Your task to perform on an android device: turn on the 24-hour format for clock Image 0: 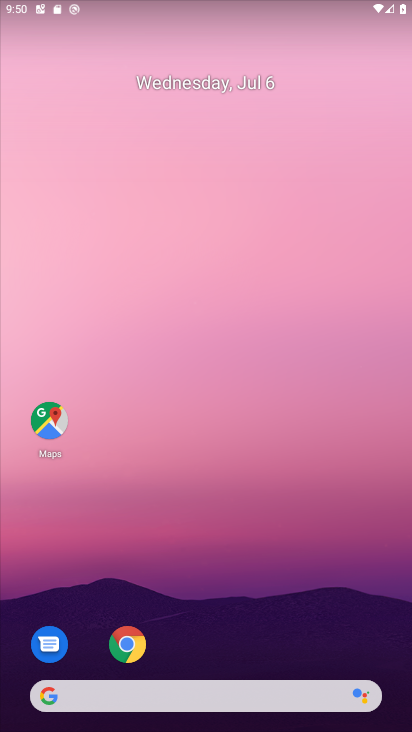
Step 0: drag from (207, 669) to (191, 87)
Your task to perform on an android device: turn on the 24-hour format for clock Image 1: 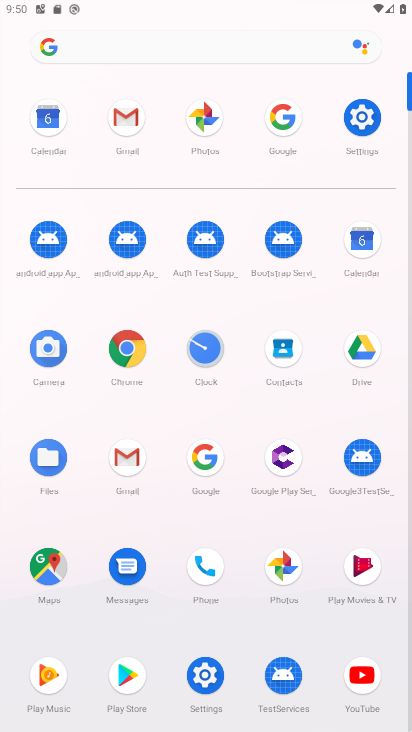
Step 1: drag from (216, 526) to (218, 315)
Your task to perform on an android device: turn on the 24-hour format for clock Image 2: 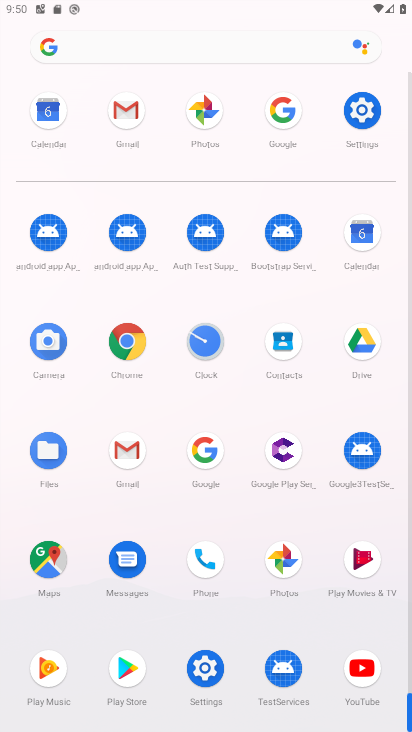
Step 2: click (207, 348)
Your task to perform on an android device: turn on the 24-hour format for clock Image 3: 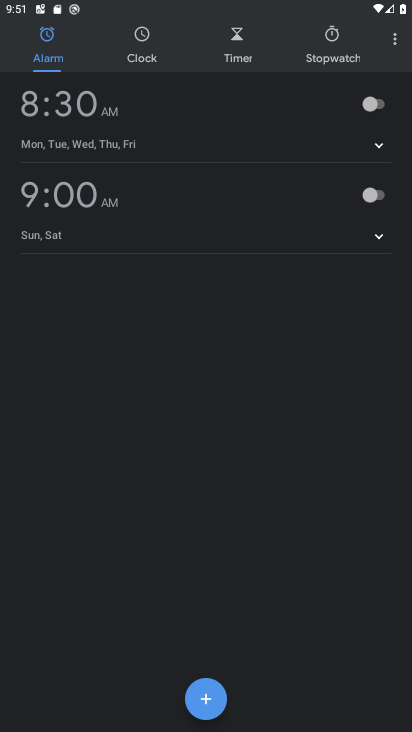
Step 3: click (395, 50)
Your task to perform on an android device: turn on the 24-hour format for clock Image 4: 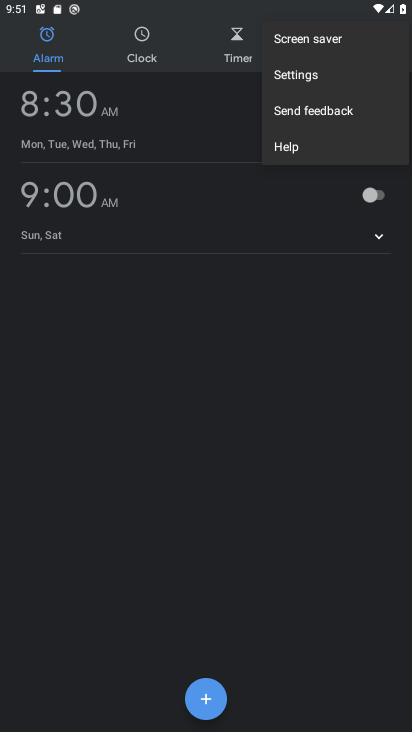
Step 4: click (325, 74)
Your task to perform on an android device: turn on the 24-hour format for clock Image 5: 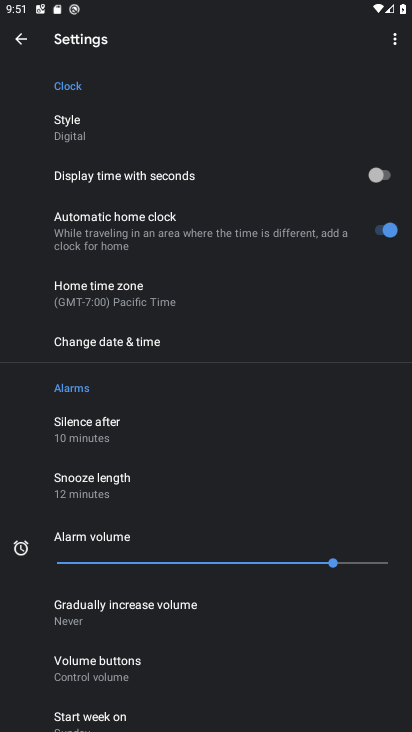
Step 5: drag from (210, 537) to (200, 375)
Your task to perform on an android device: turn on the 24-hour format for clock Image 6: 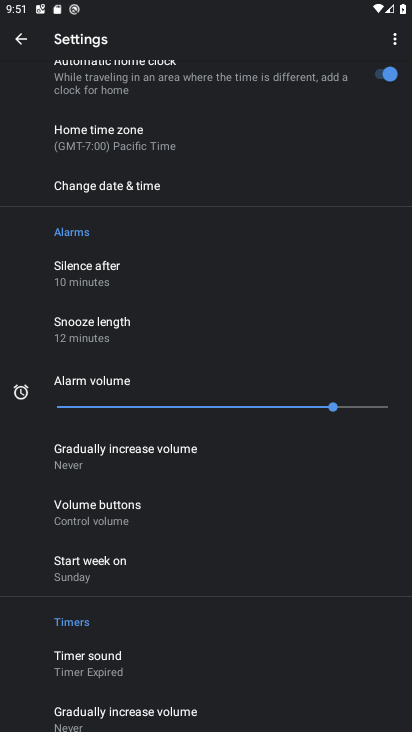
Step 6: drag from (196, 333) to (190, 510)
Your task to perform on an android device: turn on the 24-hour format for clock Image 7: 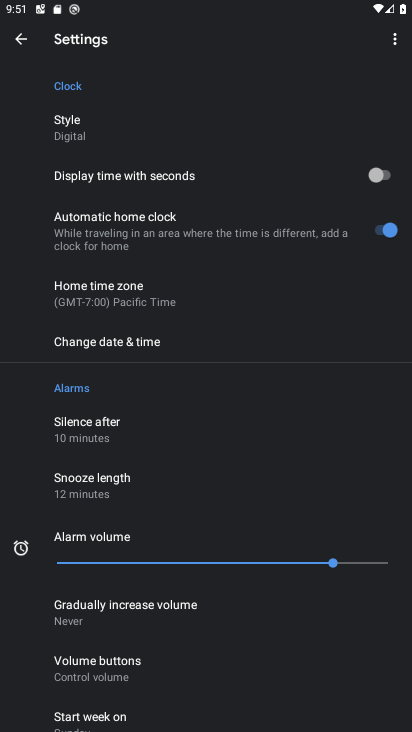
Step 7: click (160, 335)
Your task to perform on an android device: turn on the 24-hour format for clock Image 8: 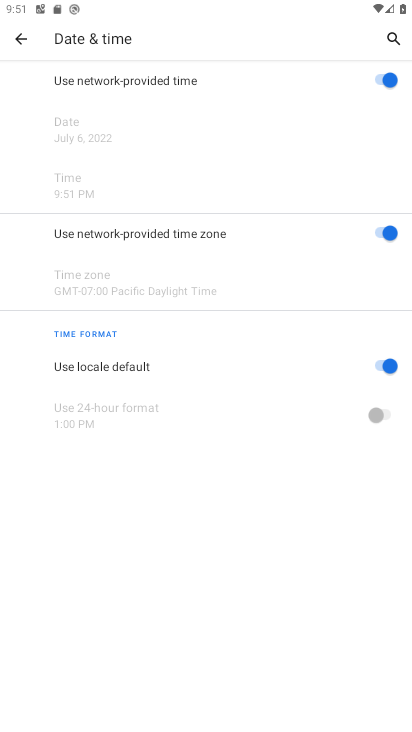
Step 8: task complete